Your task to perform on an android device: Is it going to rain tomorrow? Image 0: 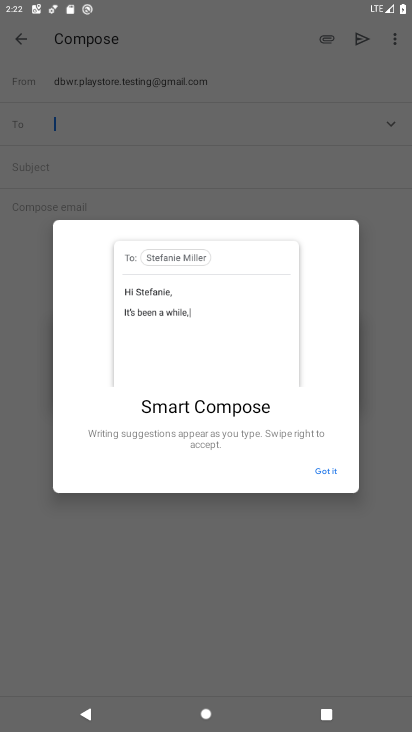
Step 0: press home button
Your task to perform on an android device: Is it going to rain tomorrow? Image 1: 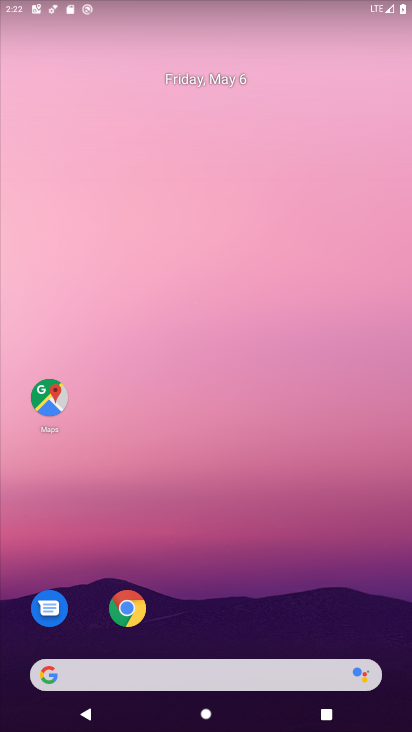
Step 1: click (183, 665)
Your task to perform on an android device: Is it going to rain tomorrow? Image 2: 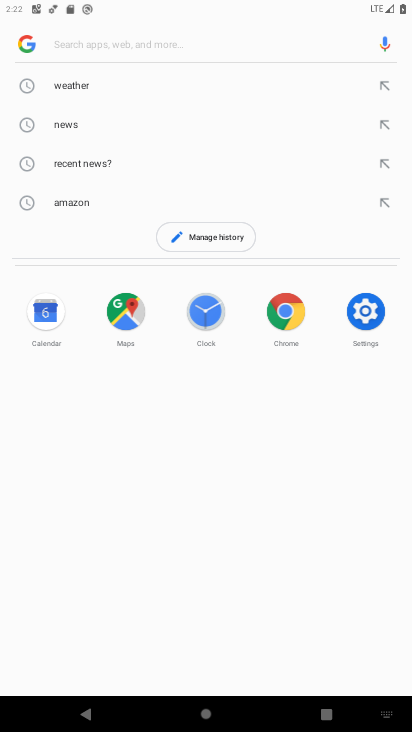
Step 2: click (73, 86)
Your task to perform on an android device: Is it going to rain tomorrow? Image 3: 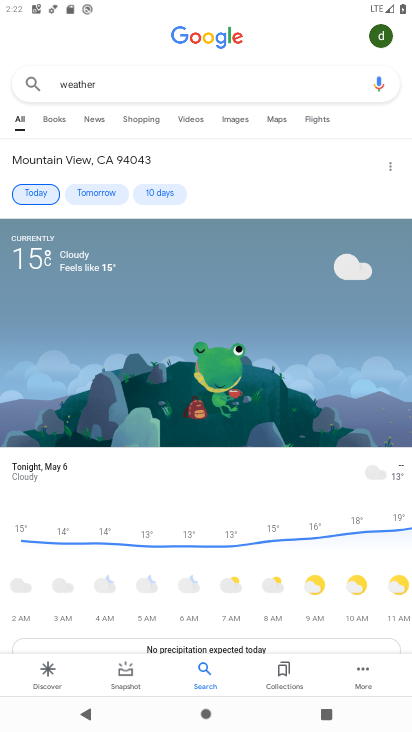
Step 3: click (107, 196)
Your task to perform on an android device: Is it going to rain tomorrow? Image 4: 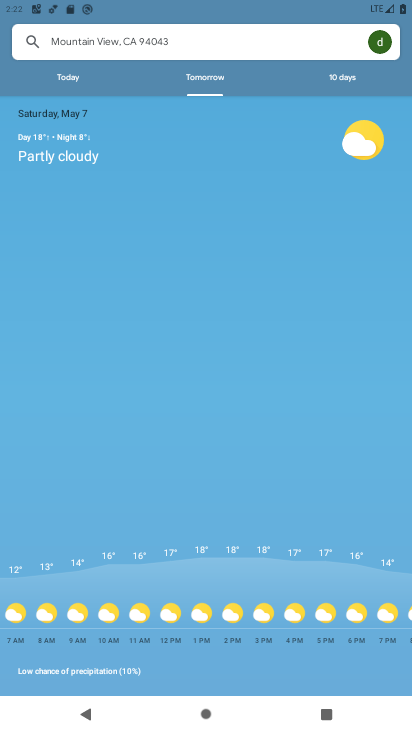
Step 4: task complete